Your task to perform on an android device: change the clock style Image 0: 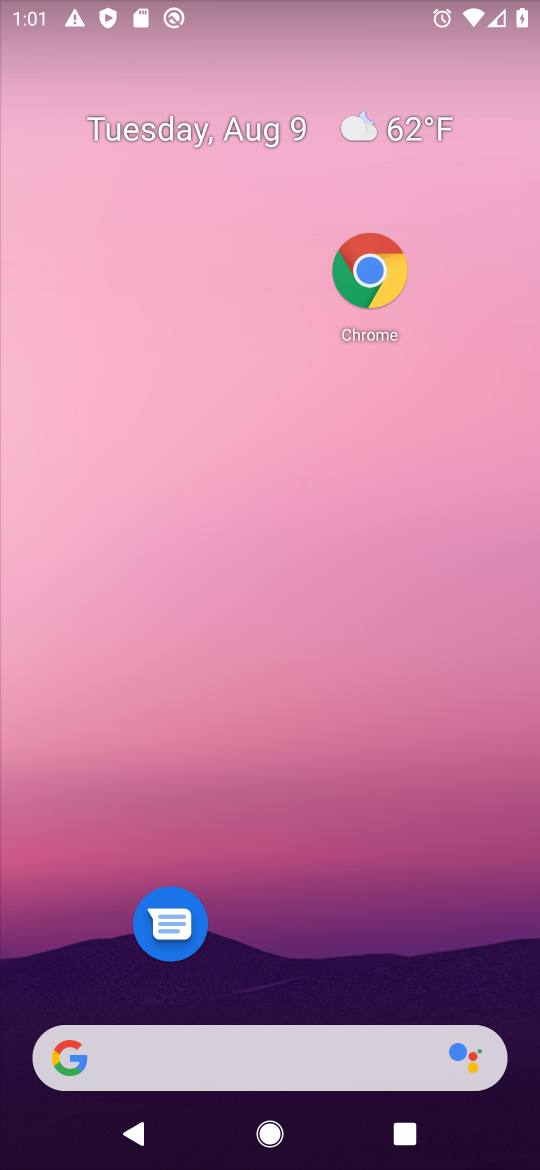
Step 0: drag from (359, 1008) to (345, 33)
Your task to perform on an android device: change the clock style Image 1: 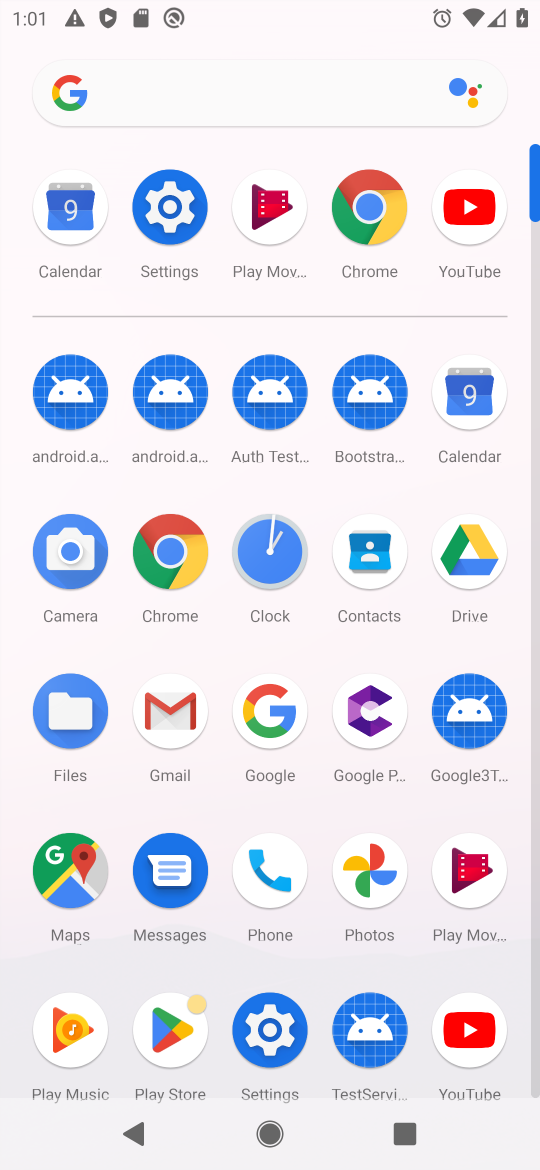
Step 1: click (245, 537)
Your task to perform on an android device: change the clock style Image 2: 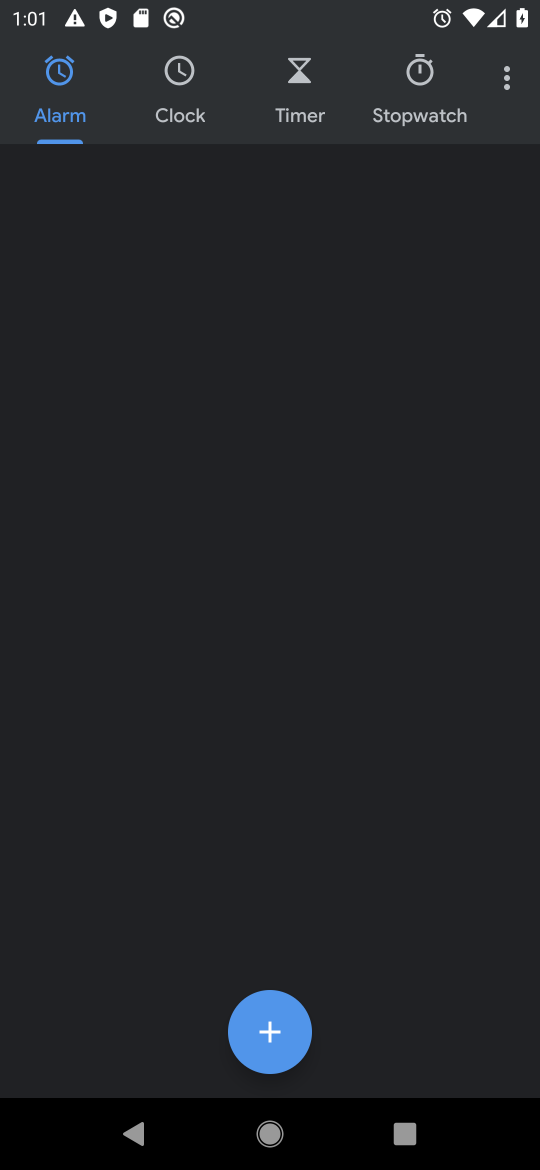
Step 2: task complete